Your task to perform on an android device: Open Yahoo.com Image 0: 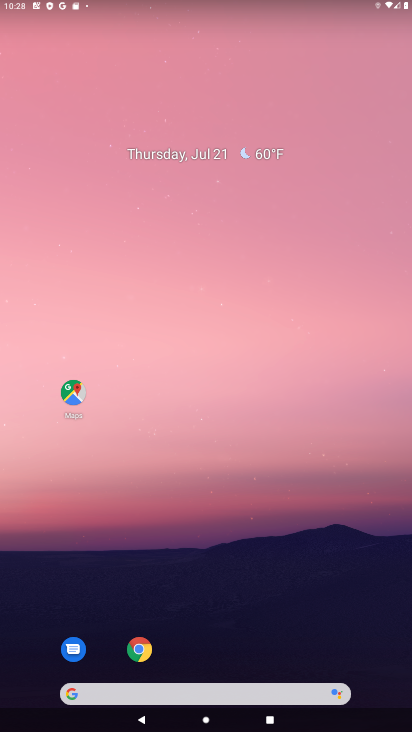
Step 0: click (138, 651)
Your task to perform on an android device: Open Yahoo.com Image 1: 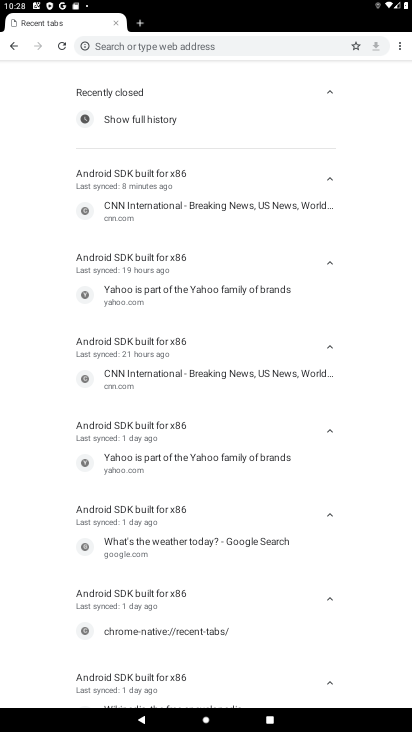
Step 1: click (237, 44)
Your task to perform on an android device: Open Yahoo.com Image 2: 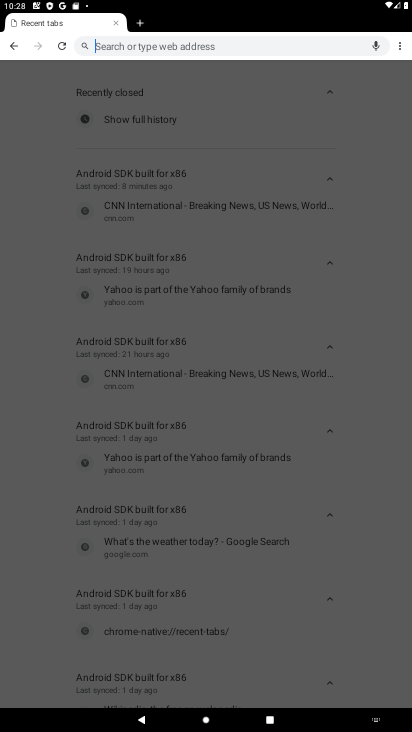
Step 2: type "Yahoo.com"
Your task to perform on an android device: Open Yahoo.com Image 3: 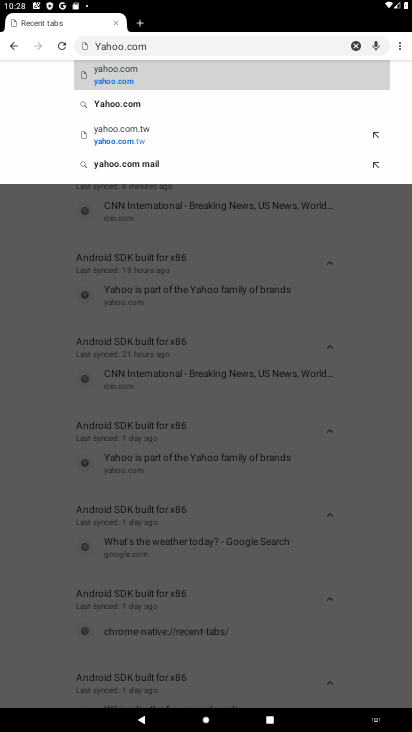
Step 3: click (118, 102)
Your task to perform on an android device: Open Yahoo.com Image 4: 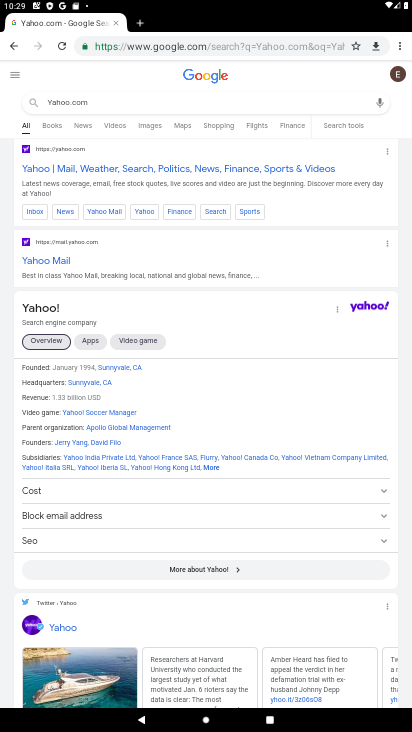
Step 4: click (102, 173)
Your task to perform on an android device: Open Yahoo.com Image 5: 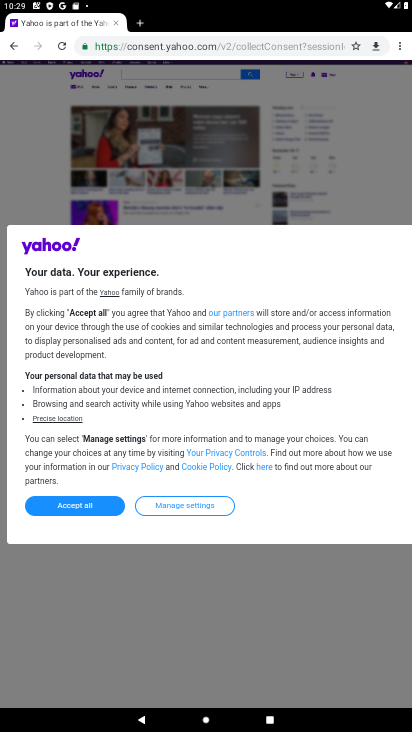
Step 5: click (96, 511)
Your task to perform on an android device: Open Yahoo.com Image 6: 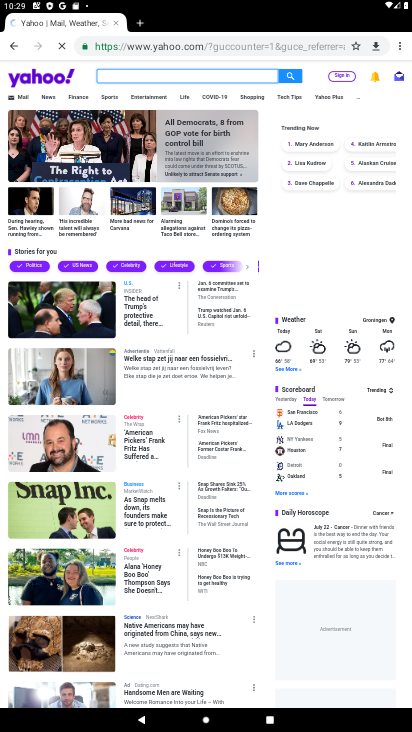
Step 6: task complete